Your task to perform on an android device: What's on my calendar today? Image 0: 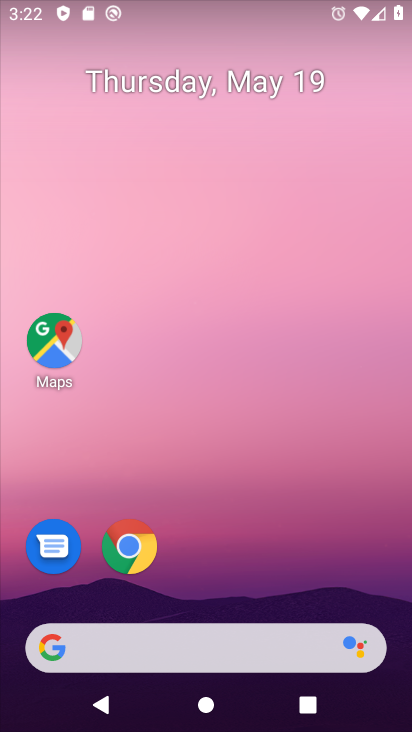
Step 0: drag from (232, 594) to (245, 53)
Your task to perform on an android device: What's on my calendar today? Image 1: 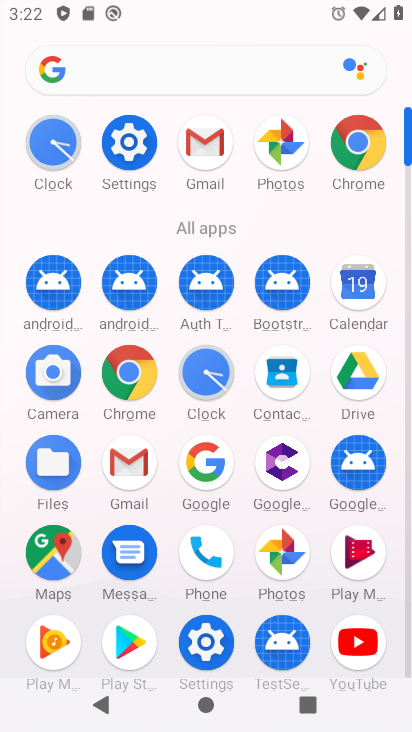
Step 1: click (353, 282)
Your task to perform on an android device: What's on my calendar today? Image 2: 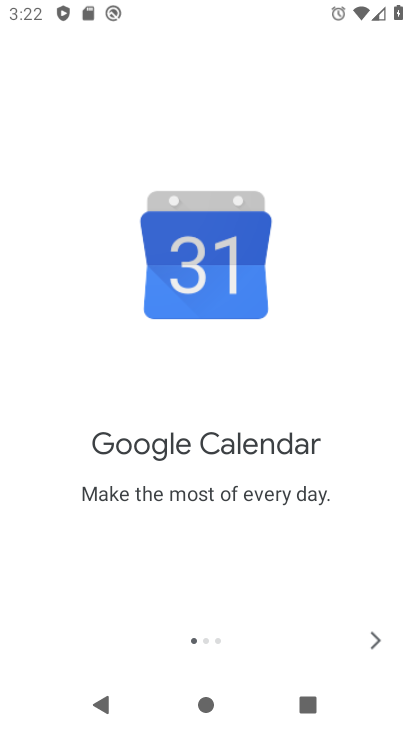
Step 2: click (376, 631)
Your task to perform on an android device: What's on my calendar today? Image 3: 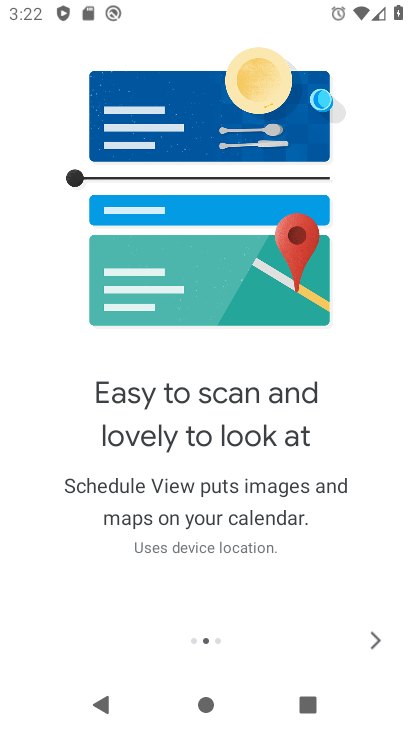
Step 3: click (369, 635)
Your task to perform on an android device: What's on my calendar today? Image 4: 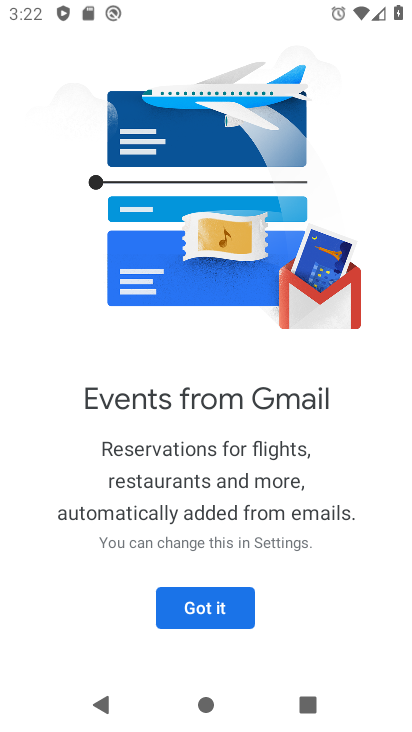
Step 4: click (212, 609)
Your task to perform on an android device: What's on my calendar today? Image 5: 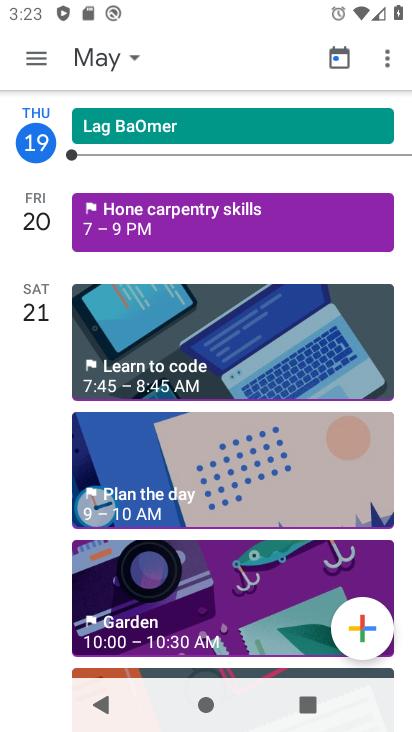
Step 5: drag from (33, 488) to (75, 230)
Your task to perform on an android device: What's on my calendar today? Image 6: 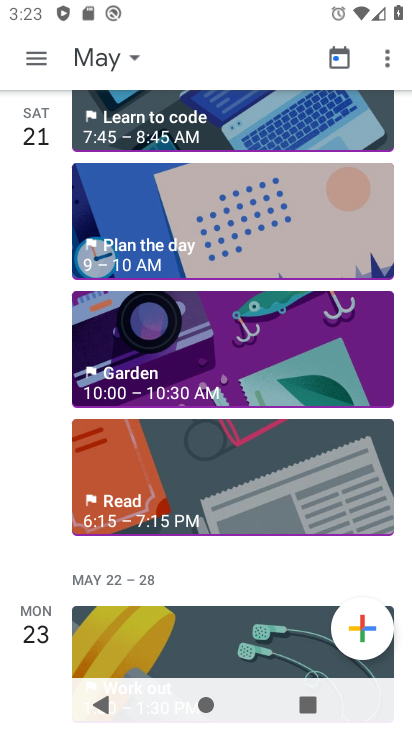
Step 6: drag from (31, 183) to (20, 631)
Your task to perform on an android device: What's on my calendar today? Image 7: 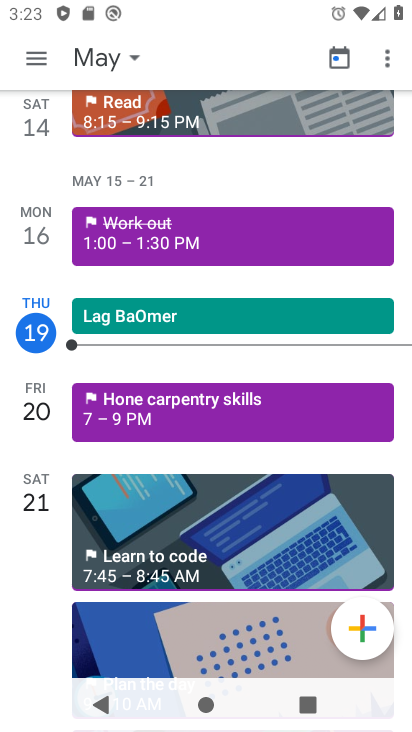
Step 7: click (52, 358)
Your task to perform on an android device: What's on my calendar today? Image 8: 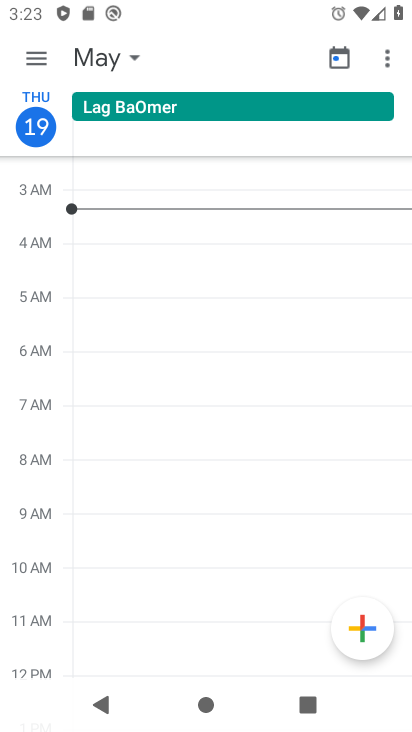
Step 8: task complete